Your task to perform on an android device: empty trash in google photos Image 0: 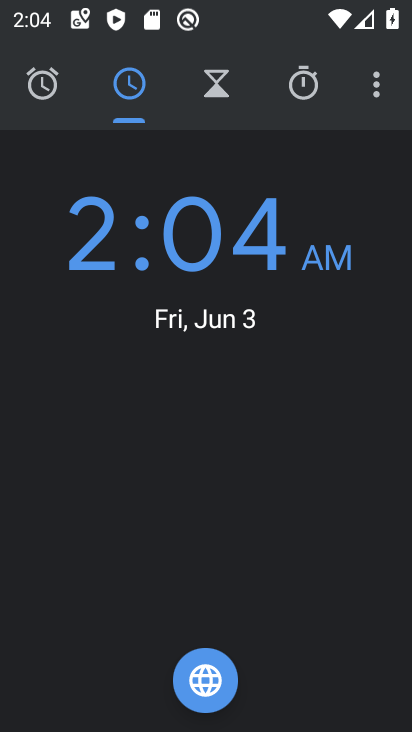
Step 0: press home button
Your task to perform on an android device: empty trash in google photos Image 1: 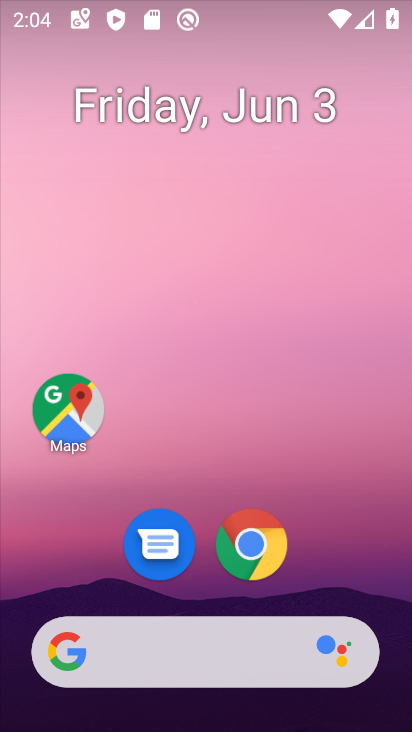
Step 1: drag from (334, 580) to (365, 156)
Your task to perform on an android device: empty trash in google photos Image 2: 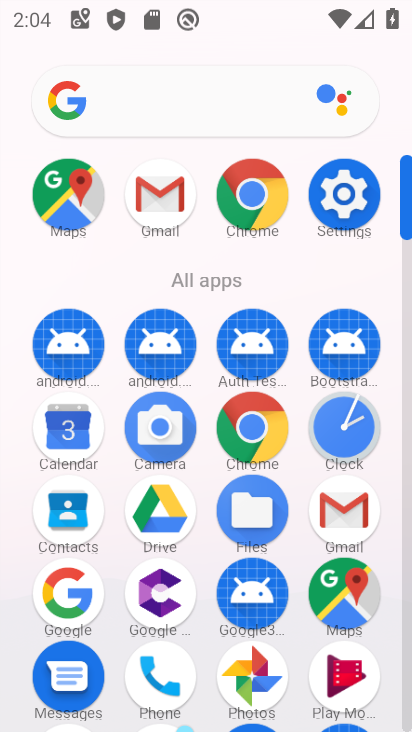
Step 2: click (259, 684)
Your task to perform on an android device: empty trash in google photos Image 3: 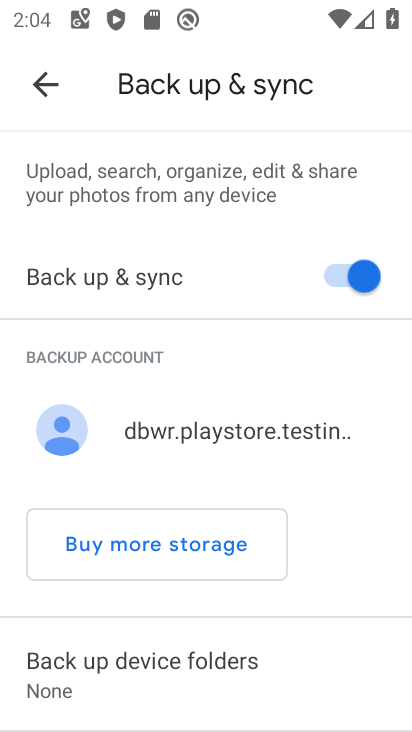
Step 3: click (34, 88)
Your task to perform on an android device: empty trash in google photos Image 4: 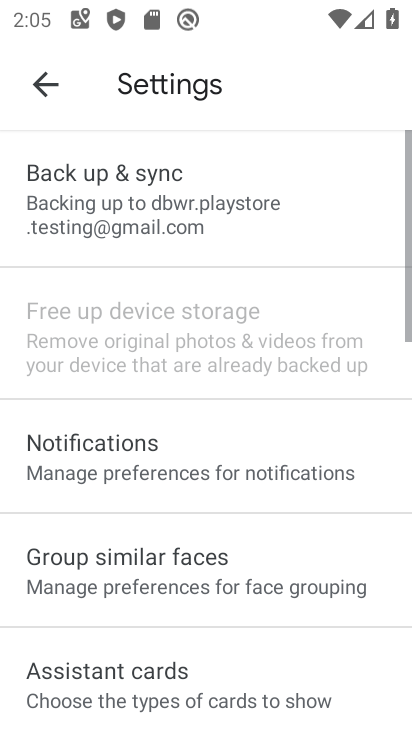
Step 4: click (34, 88)
Your task to perform on an android device: empty trash in google photos Image 5: 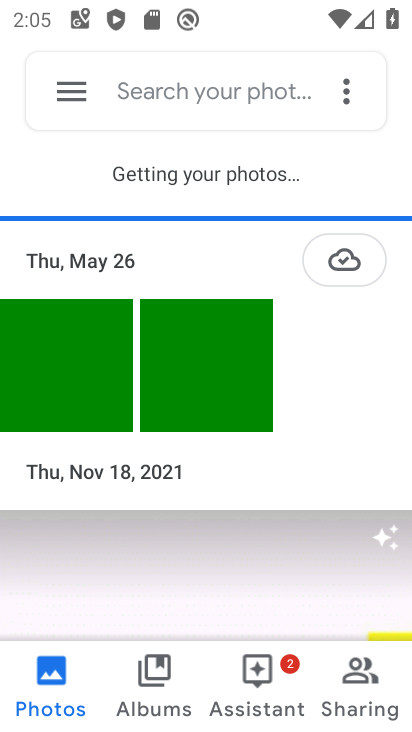
Step 5: click (99, 100)
Your task to perform on an android device: empty trash in google photos Image 6: 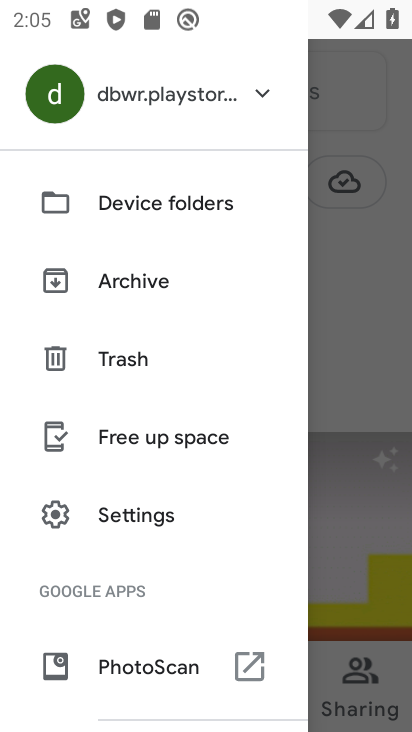
Step 6: click (155, 366)
Your task to perform on an android device: empty trash in google photos Image 7: 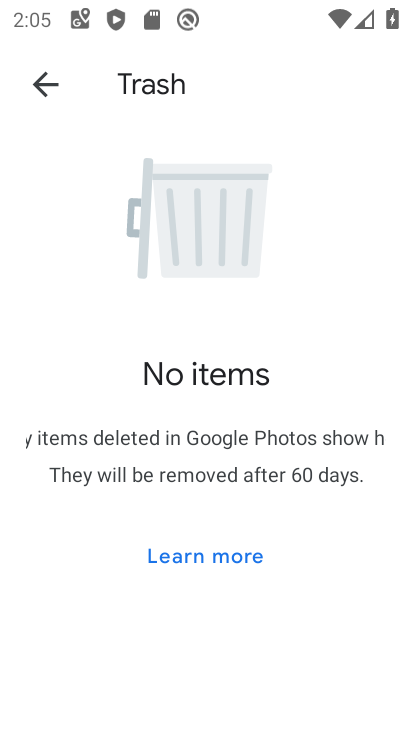
Step 7: task complete